Your task to perform on an android device: Go to notification settings Image 0: 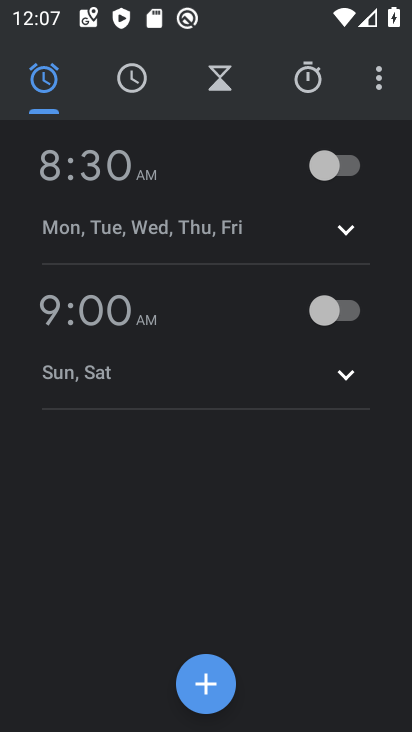
Step 0: press home button
Your task to perform on an android device: Go to notification settings Image 1: 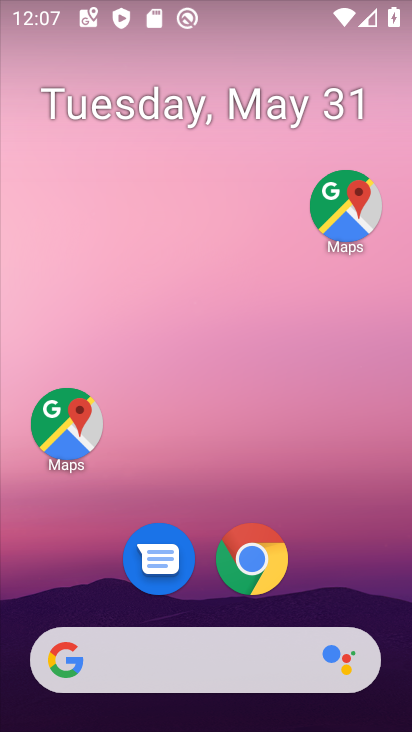
Step 1: drag from (358, 561) to (90, 141)
Your task to perform on an android device: Go to notification settings Image 2: 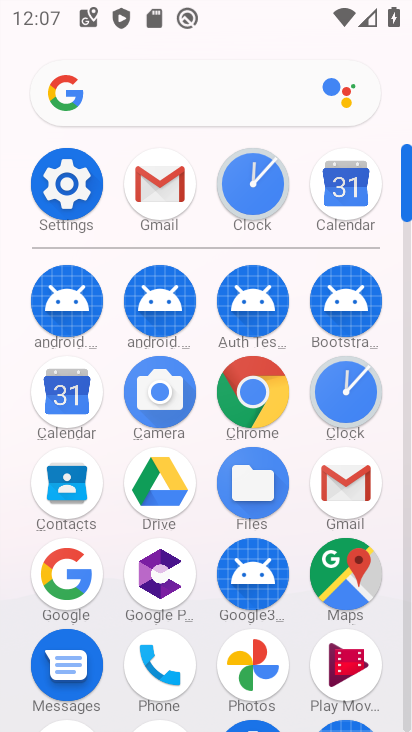
Step 2: click (58, 189)
Your task to perform on an android device: Go to notification settings Image 3: 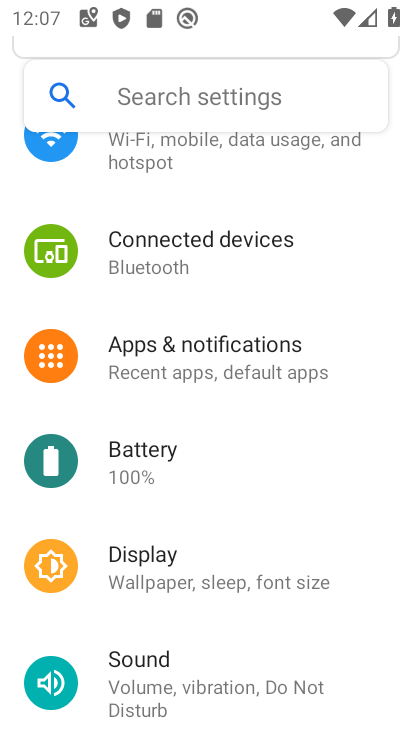
Step 3: drag from (210, 279) to (208, 510)
Your task to perform on an android device: Go to notification settings Image 4: 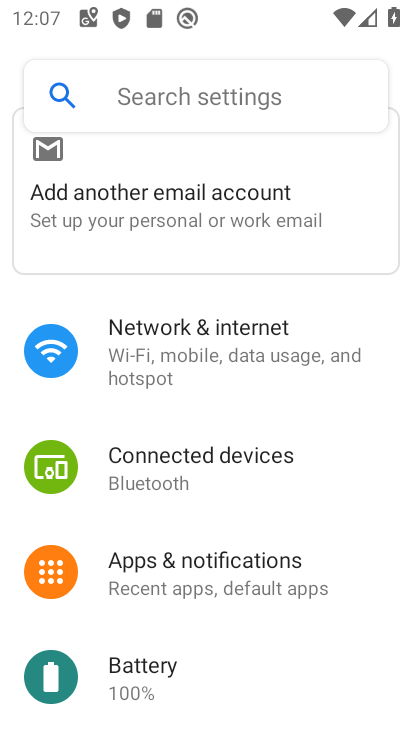
Step 4: click (182, 559)
Your task to perform on an android device: Go to notification settings Image 5: 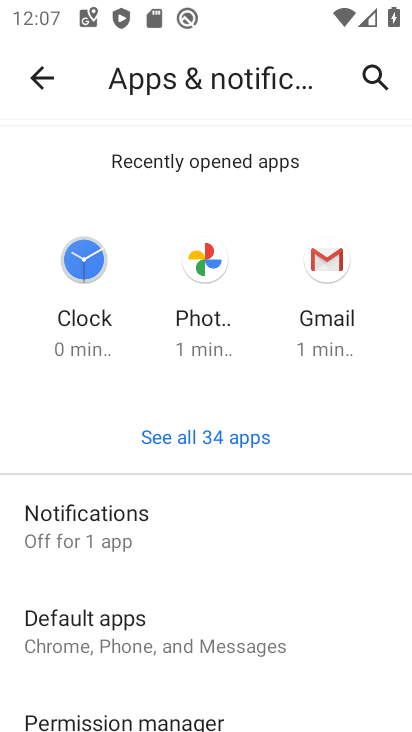
Step 5: click (115, 535)
Your task to perform on an android device: Go to notification settings Image 6: 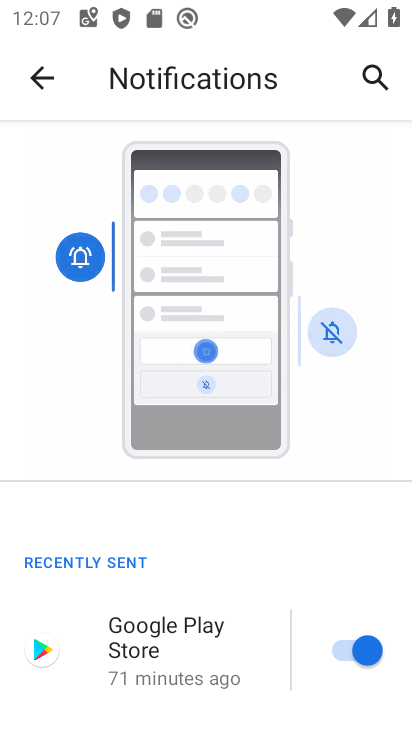
Step 6: click (291, 198)
Your task to perform on an android device: Go to notification settings Image 7: 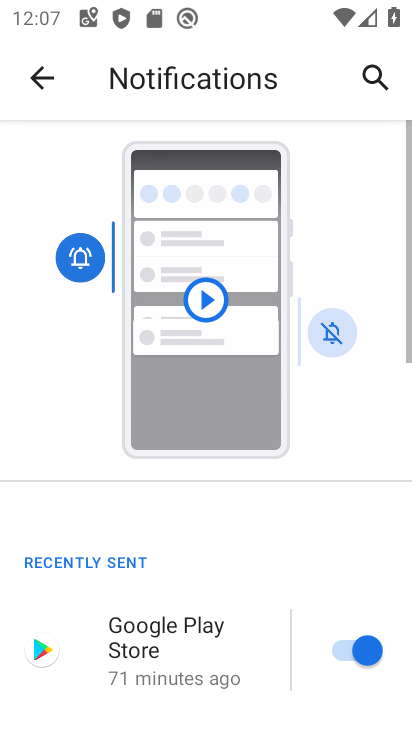
Step 7: task complete